Your task to perform on an android device: Open location settings Image 0: 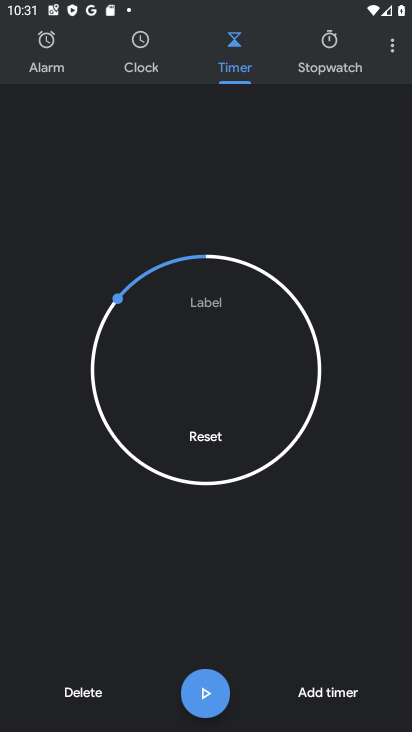
Step 0: press home button
Your task to perform on an android device: Open location settings Image 1: 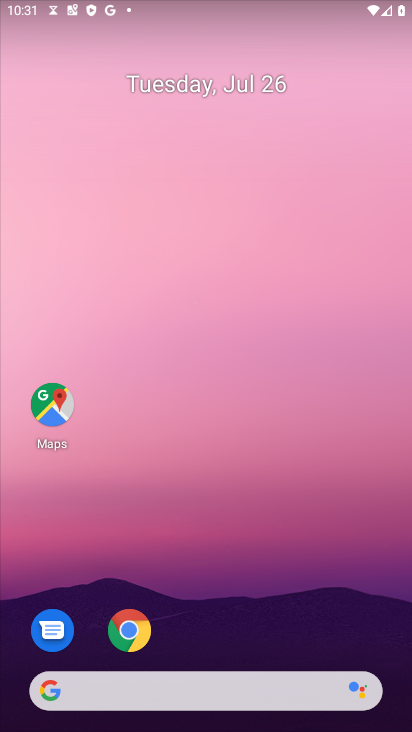
Step 1: drag from (199, 696) to (275, 18)
Your task to perform on an android device: Open location settings Image 2: 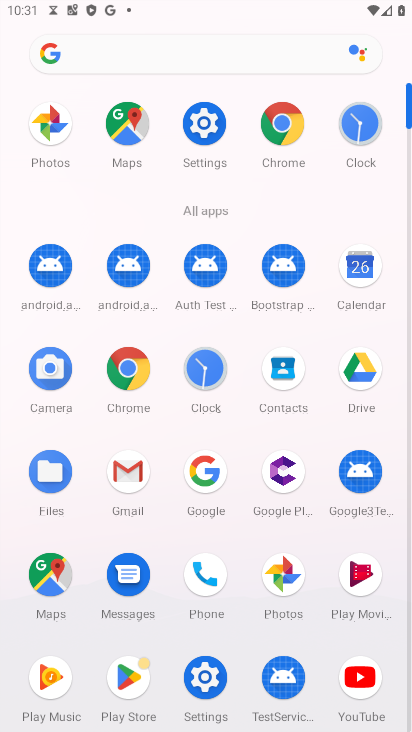
Step 2: click (203, 121)
Your task to perform on an android device: Open location settings Image 3: 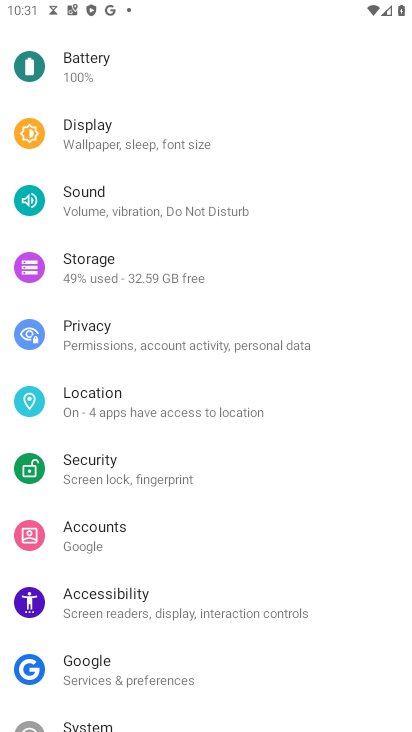
Step 3: click (102, 397)
Your task to perform on an android device: Open location settings Image 4: 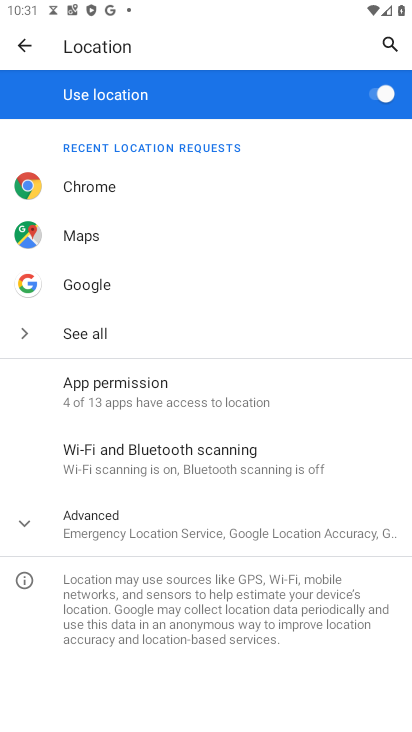
Step 4: task complete